Your task to perform on an android device: all mails in gmail Image 0: 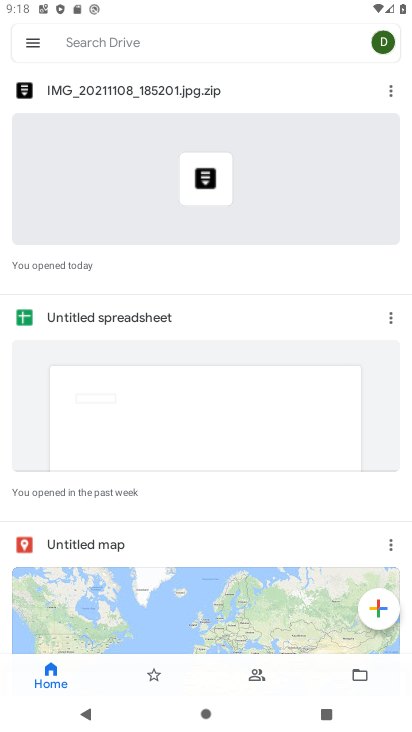
Step 0: press home button
Your task to perform on an android device: all mails in gmail Image 1: 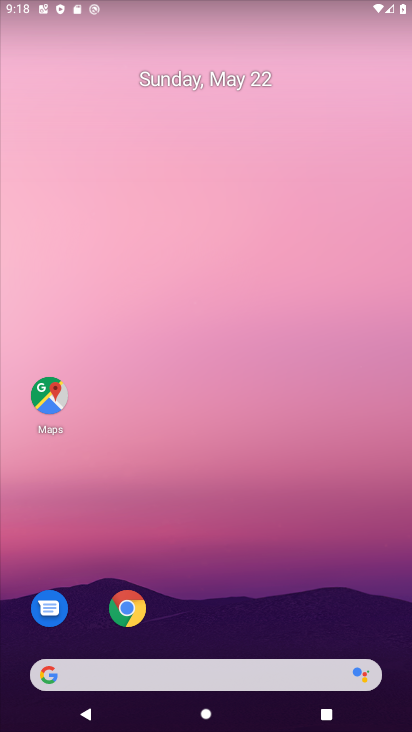
Step 1: drag from (282, 322) to (241, 36)
Your task to perform on an android device: all mails in gmail Image 2: 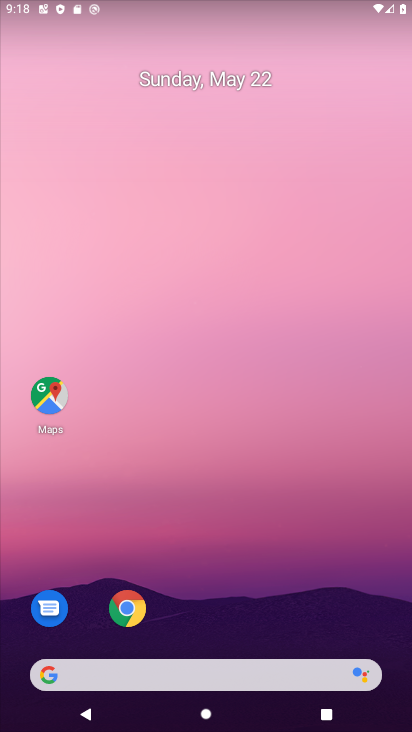
Step 2: drag from (328, 580) to (347, 115)
Your task to perform on an android device: all mails in gmail Image 3: 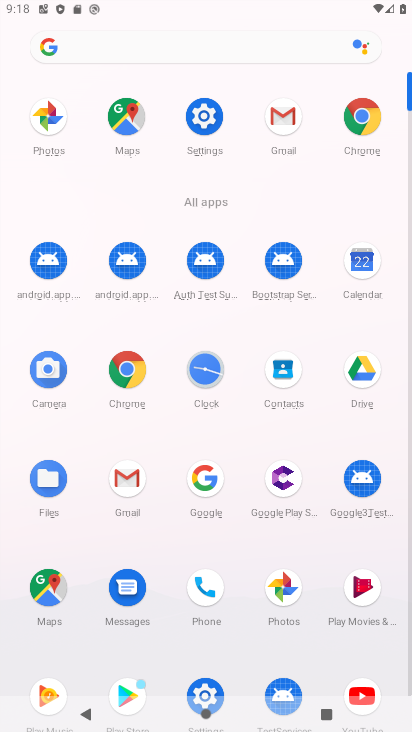
Step 3: click (271, 113)
Your task to perform on an android device: all mails in gmail Image 4: 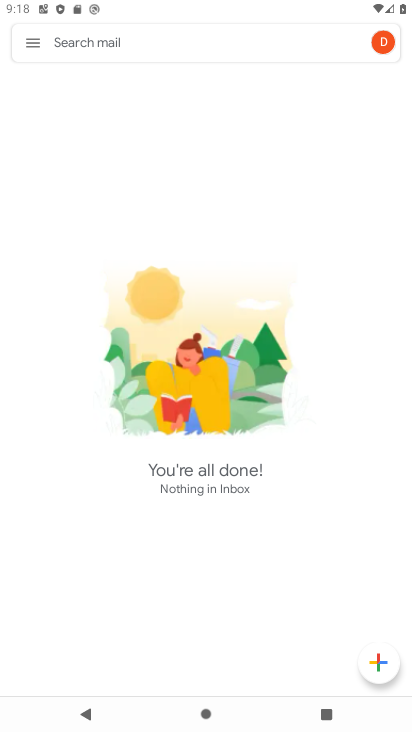
Step 4: click (26, 35)
Your task to perform on an android device: all mails in gmail Image 5: 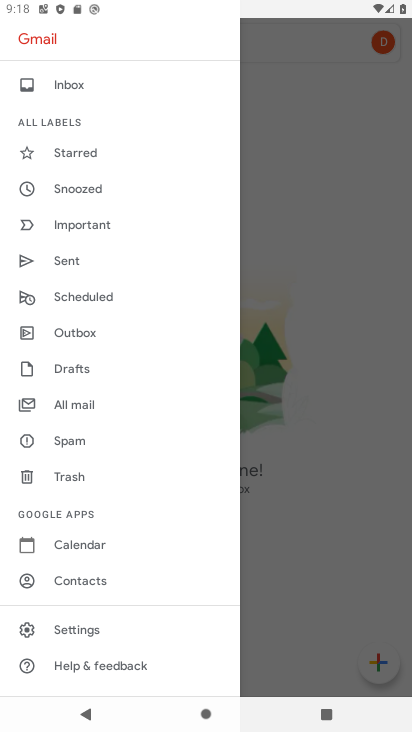
Step 5: click (113, 404)
Your task to perform on an android device: all mails in gmail Image 6: 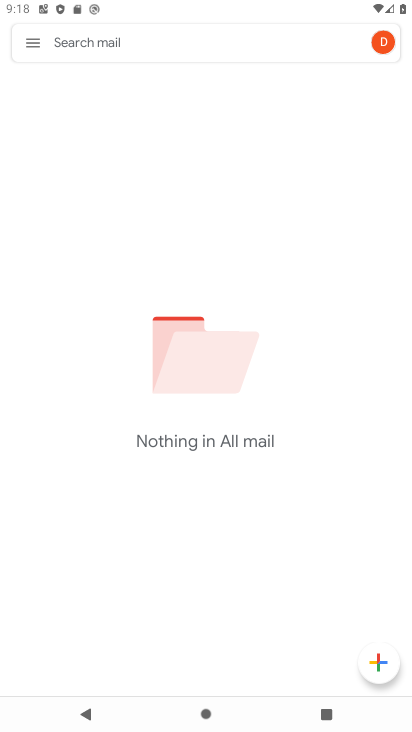
Step 6: task complete